Your task to perform on an android device: stop showing notifications on the lock screen Image 0: 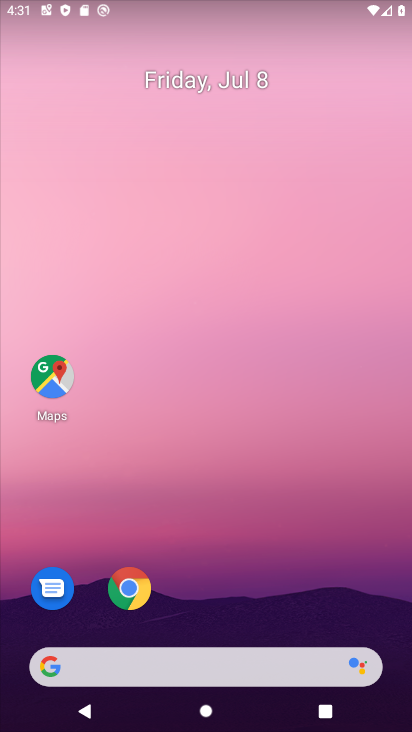
Step 0: drag from (221, 611) to (336, 7)
Your task to perform on an android device: stop showing notifications on the lock screen Image 1: 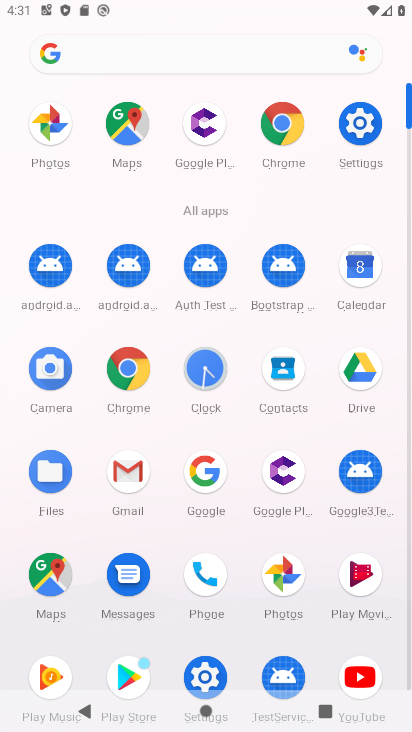
Step 1: click (201, 676)
Your task to perform on an android device: stop showing notifications on the lock screen Image 2: 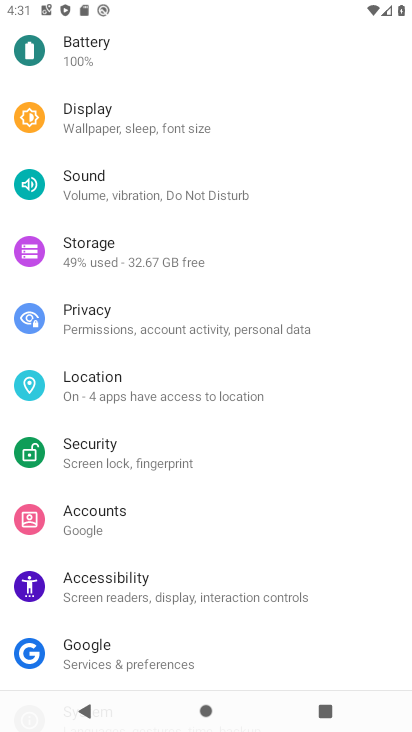
Step 2: drag from (187, 165) to (219, 440)
Your task to perform on an android device: stop showing notifications on the lock screen Image 3: 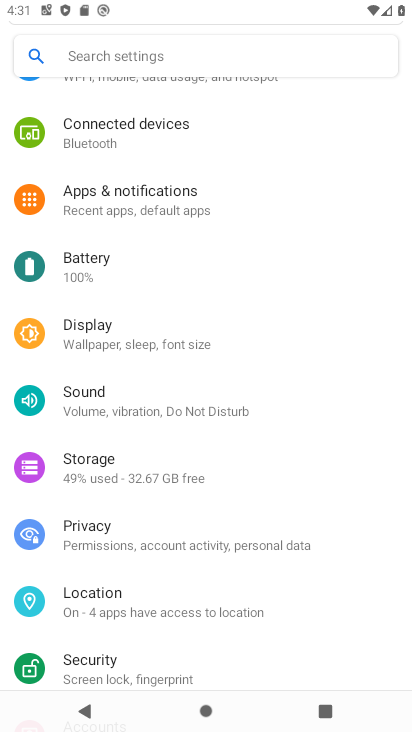
Step 3: click (172, 207)
Your task to perform on an android device: stop showing notifications on the lock screen Image 4: 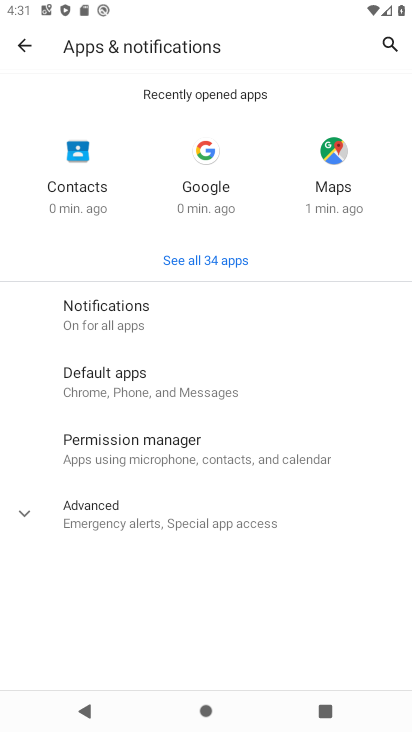
Step 4: click (148, 199)
Your task to perform on an android device: stop showing notifications on the lock screen Image 5: 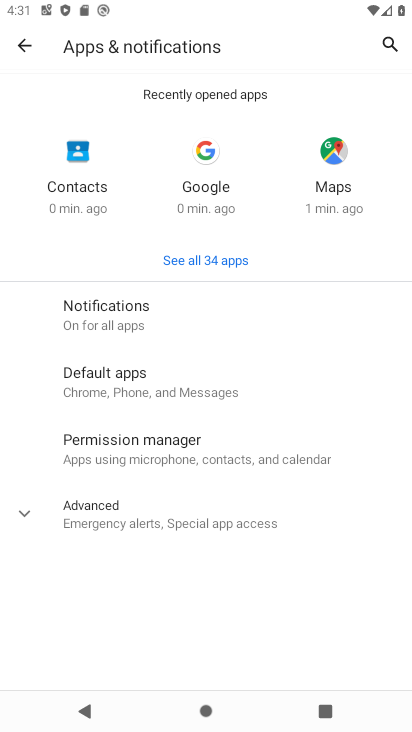
Step 5: click (107, 316)
Your task to perform on an android device: stop showing notifications on the lock screen Image 6: 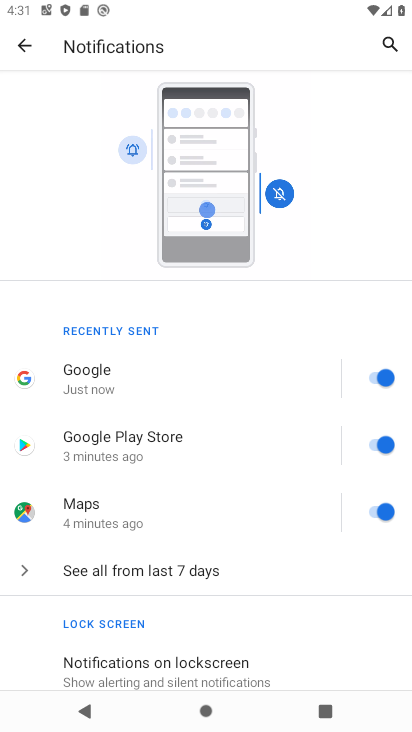
Step 6: drag from (164, 525) to (177, 398)
Your task to perform on an android device: stop showing notifications on the lock screen Image 7: 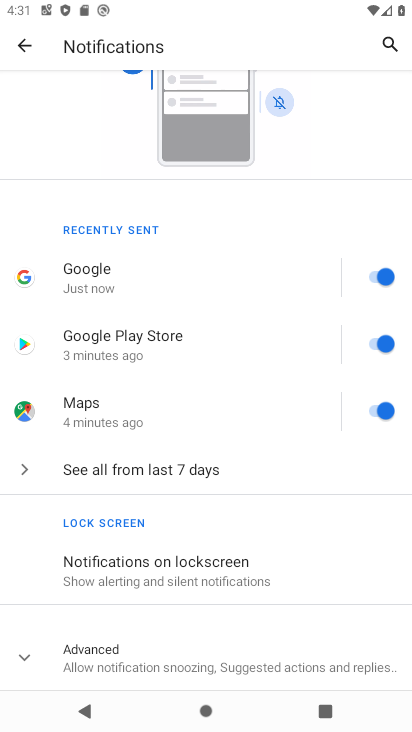
Step 7: click (119, 584)
Your task to perform on an android device: stop showing notifications on the lock screen Image 8: 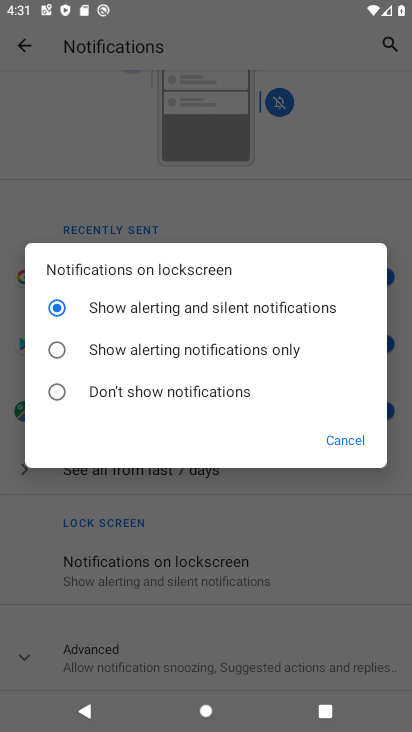
Step 8: click (53, 393)
Your task to perform on an android device: stop showing notifications on the lock screen Image 9: 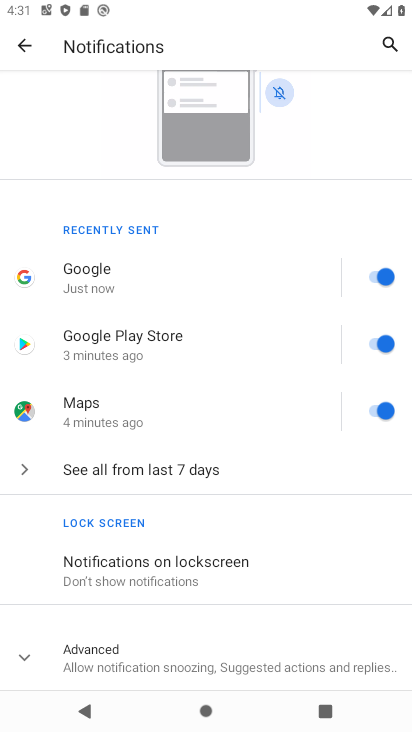
Step 9: task complete